Your task to perform on an android device: See recent photos Image 0: 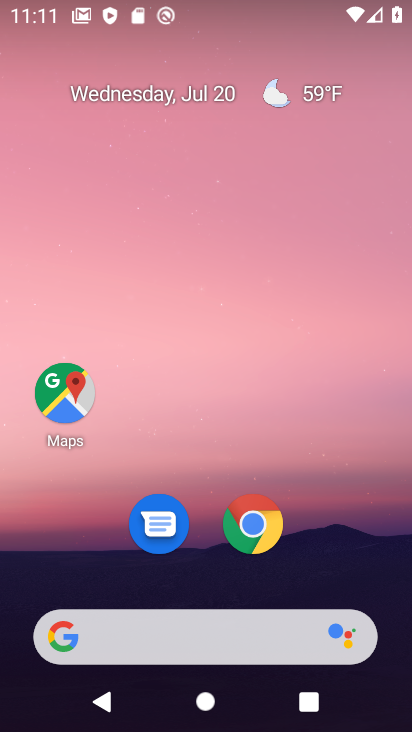
Step 0: press home button
Your task to perform on an android device: See recent photos Image 1: 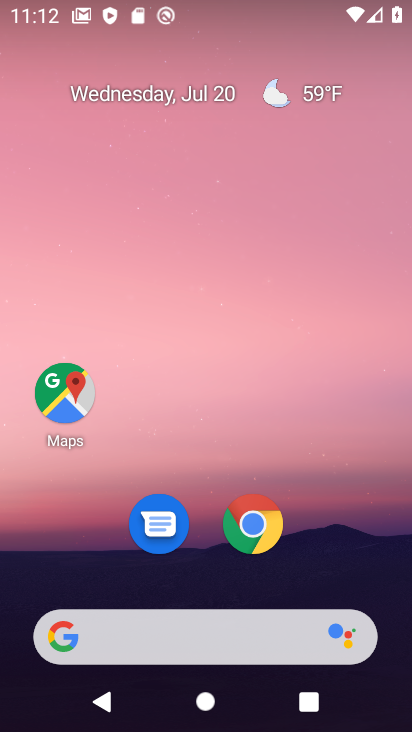
Step 1: drag from (154, 640) to (311, 174)
Your task to perform on an android device: See recent photos Image 2: 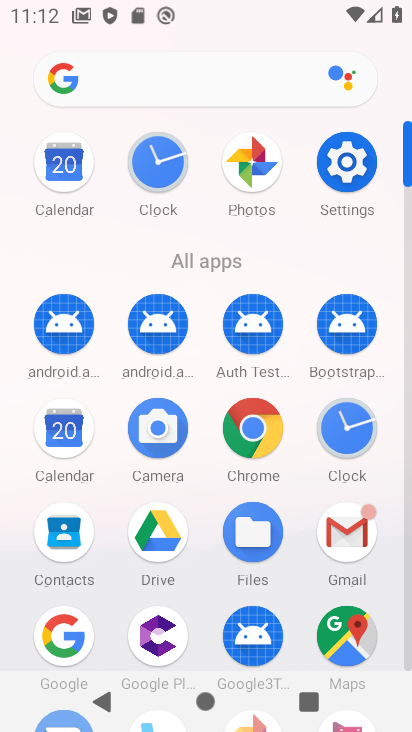
Step 2: click (260, 161)
Your task to perform on an android device: See recent photos Image 3: 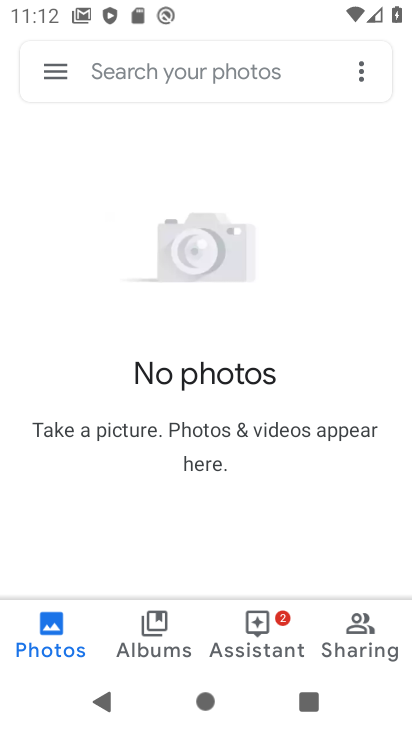
Step 3: click (169, 650)
Your task to perform on an android device: See recent photos Image 4: 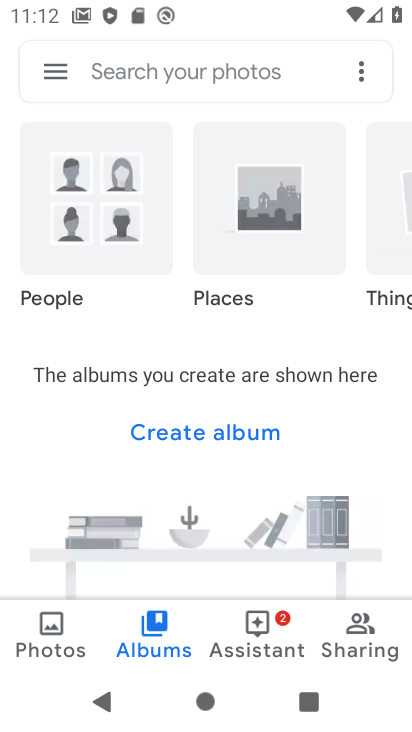
Step 4: task complete